Your task to perform on an android device: toggle sleep mode Image 0: 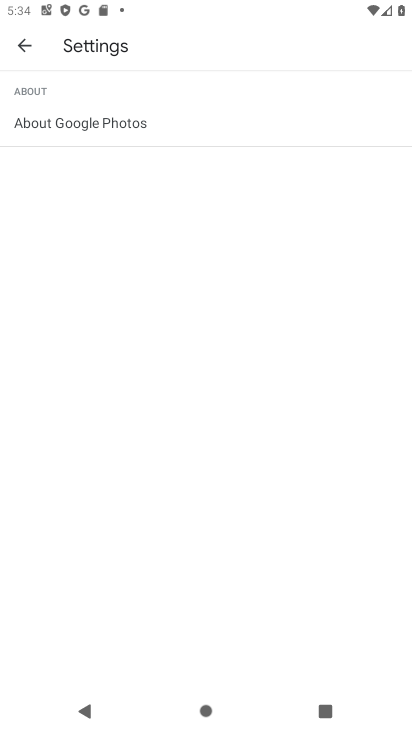
Step 0: press home button
Your task to perform on an android device: toggle sleep mode Image 1: 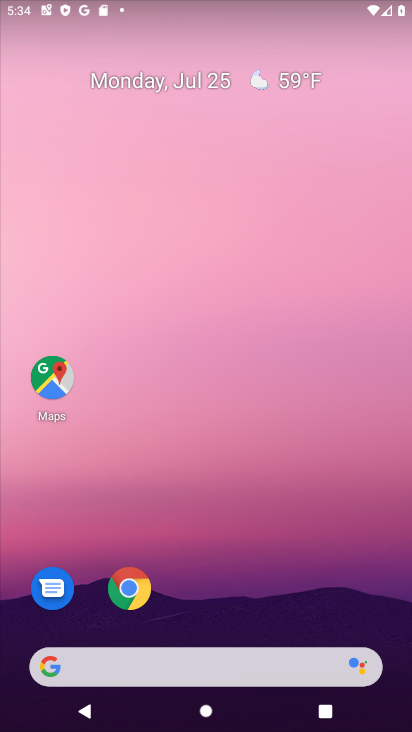
Step 1: drag from (310, 539) to (359, 213)
Your task to perform on an android device: toggle sleep mode Image 2: 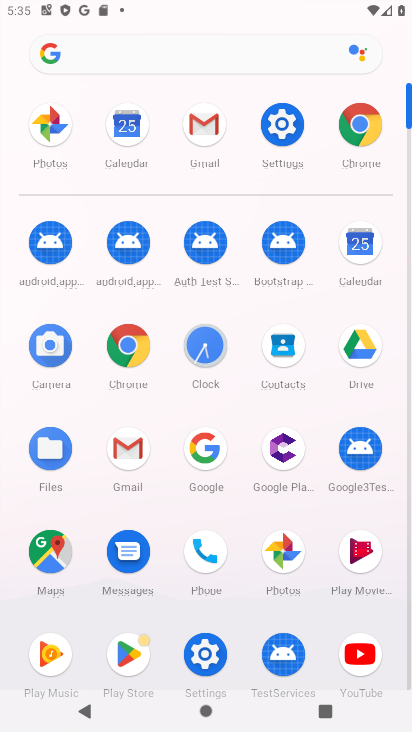
Step 2: click (284, 117)
Your task to perform on an android device: toggle sleep mode Image 3: 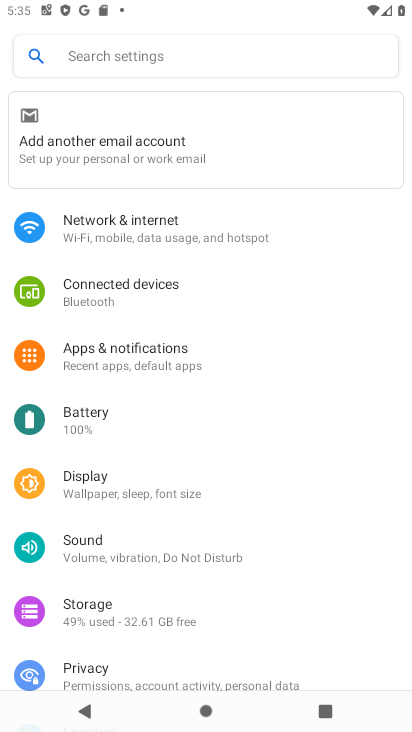
Step 3: task complete